Your task to perform on an android device: turn off picture-in-picture Image 0: 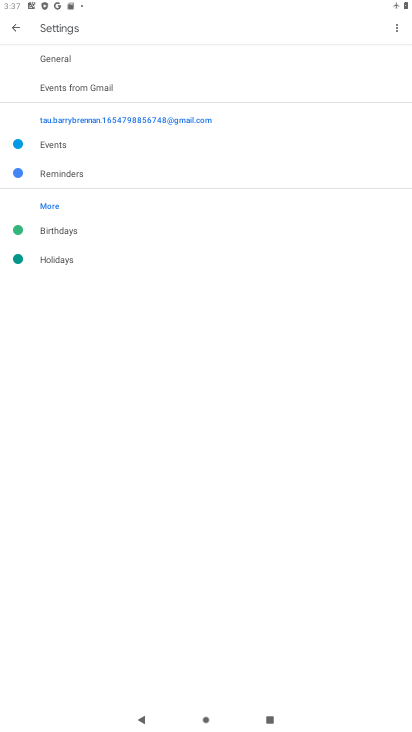
Step 0: press home button
Your task to perform on an android device: turn off picture-in-picture Image 1: 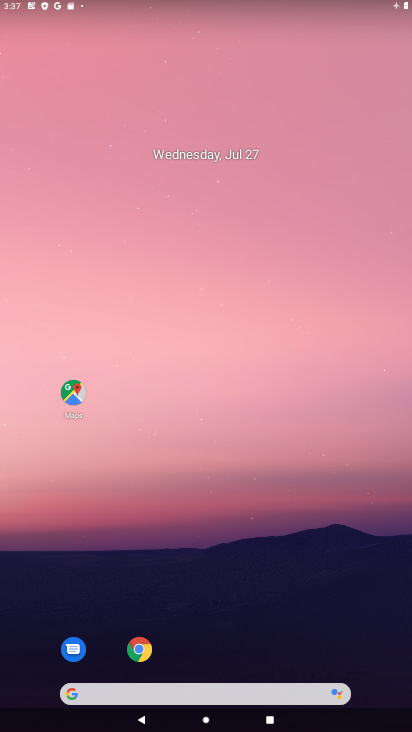
Step 1: drag from (248, 585) to (327, 100)
Your task to perform on an android device: turn off picture-in-picture Image 2: 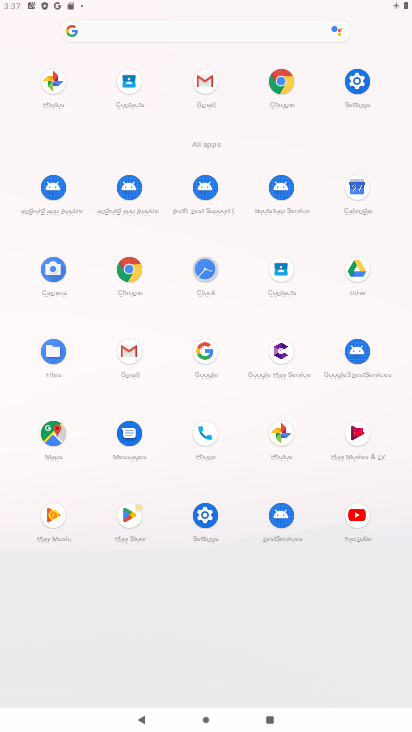
Step 2: click (283, 436)
Your task to perform on an android device: turn off picture-in-picture Image 3: 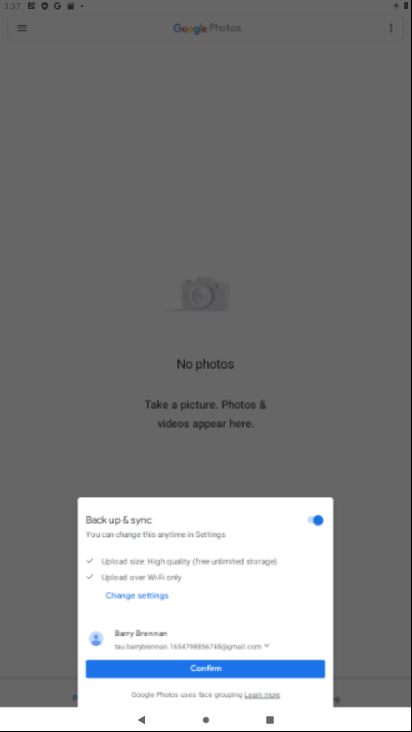
Step 3: task complete